Your task to perform on an android device: open the mobile data screen to see how much data has been used Image 0: 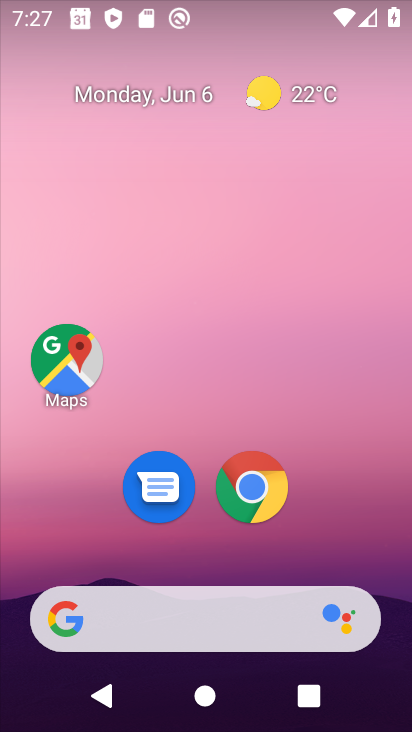
Step 0: drag from (394, 612) to (315, 70)
Your task to perform on an android device: open the mobile data screen to see how much data has been used Image 1: 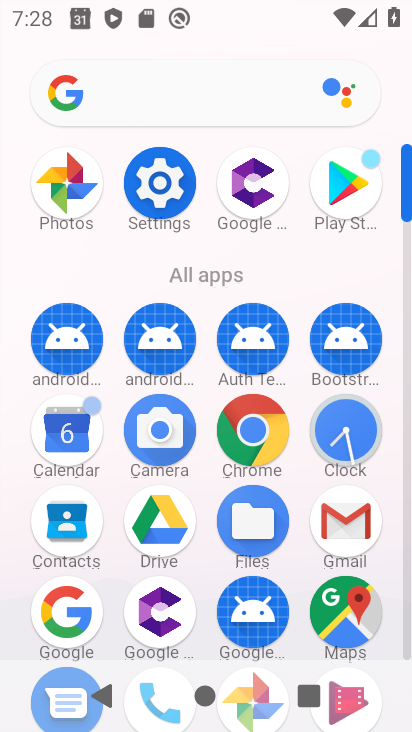
Step 1: click (172, 182)
Your task to perform on an android device: open the mobile data screen to see how much data has been used Image 2: 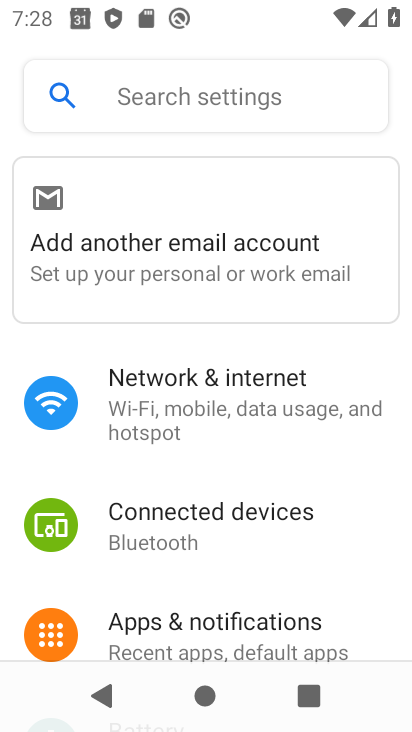
Step 2: click (226, 399)
Your task to perform on an android device: open the mobile data screen to see how much data has been used Image 3: 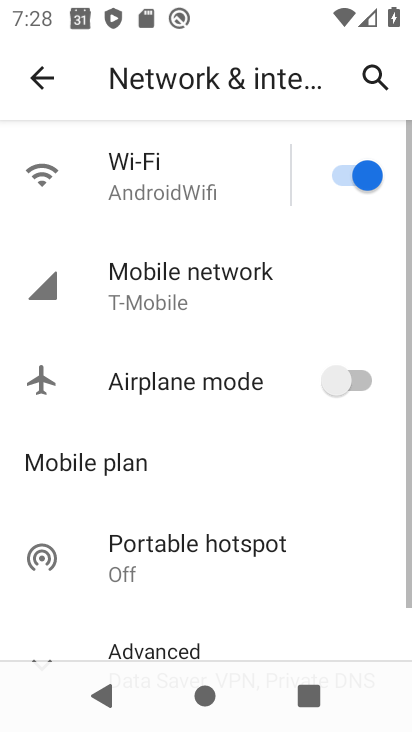
Step 3: click (229, 292)
Your task to perform on an android device: open the mobile data screen to see how much data has been used Image 4: 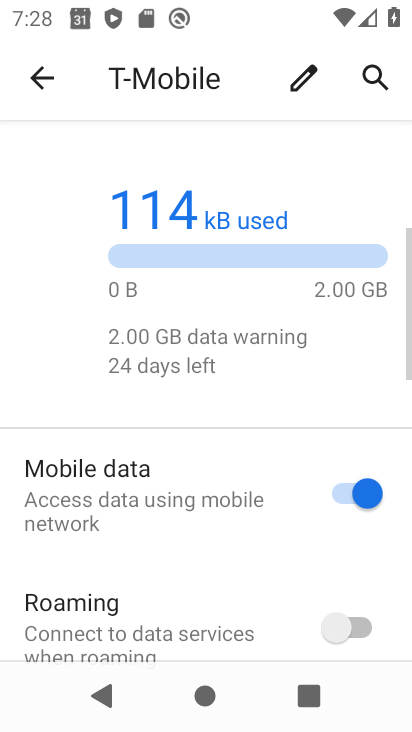
Step 4: drag from (163, 640) to (220, 125)
Your task to perform on an android device: open the mobile data screen to see how much data has been used Image 5: 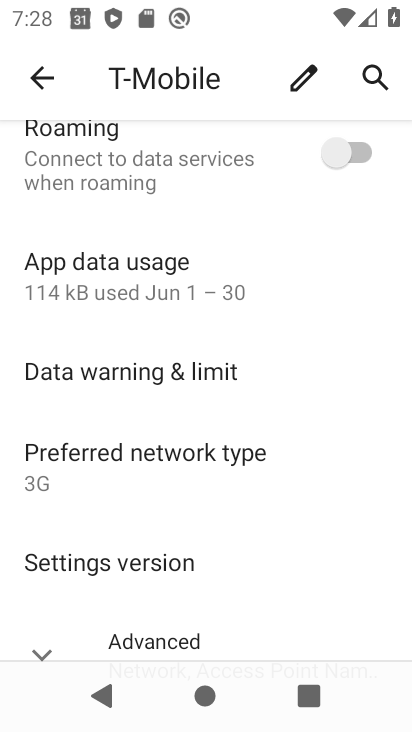
Step 5: click (137, 266)
Your task to perform on an android device: open the mobile data screen to see how much data has been used Image 6: 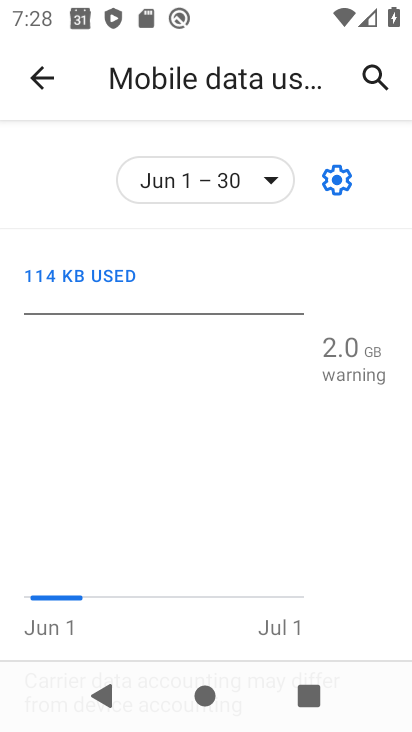
Step 6: task complete